Your task to perform on an android device: Open Google Chrome Image 0: 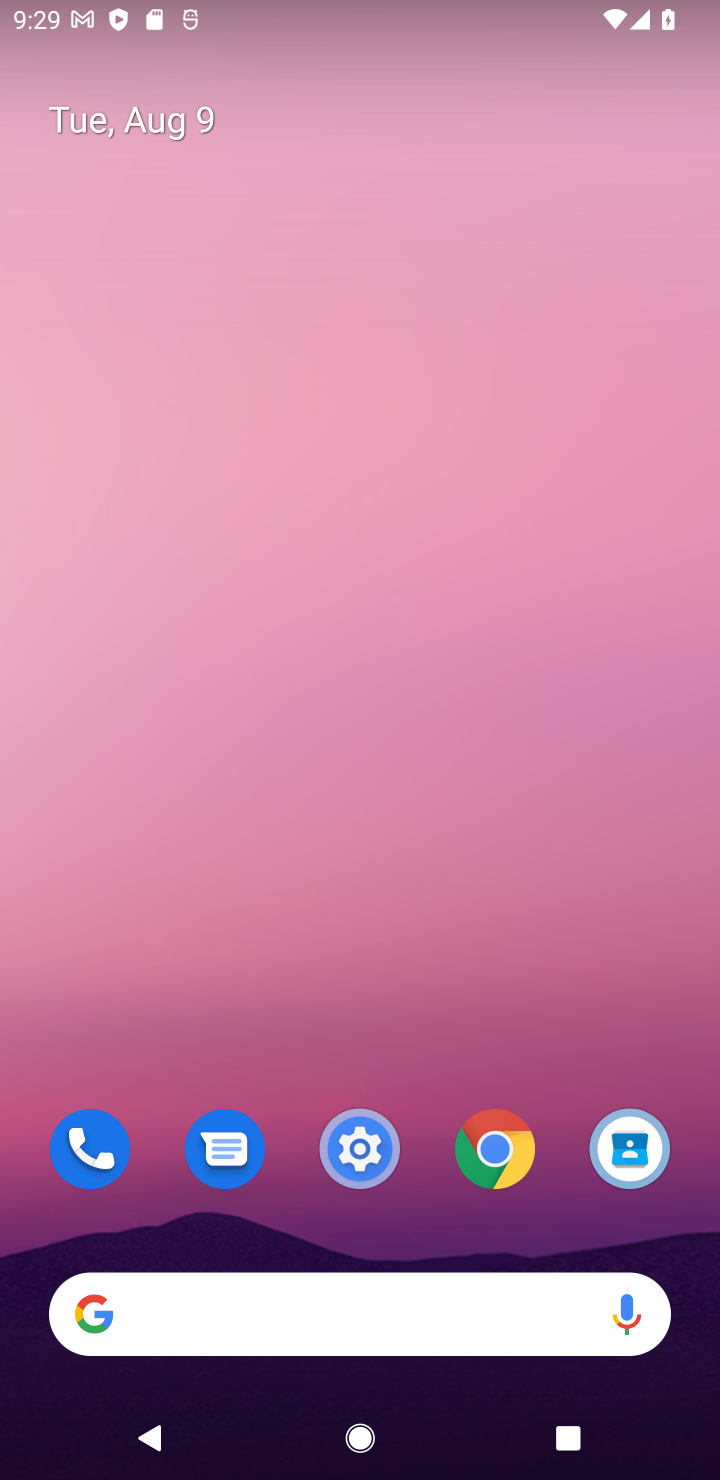
Step 0: click (516, 1152)
Your task to perform on an android device: Open Google Chrome Image 1: 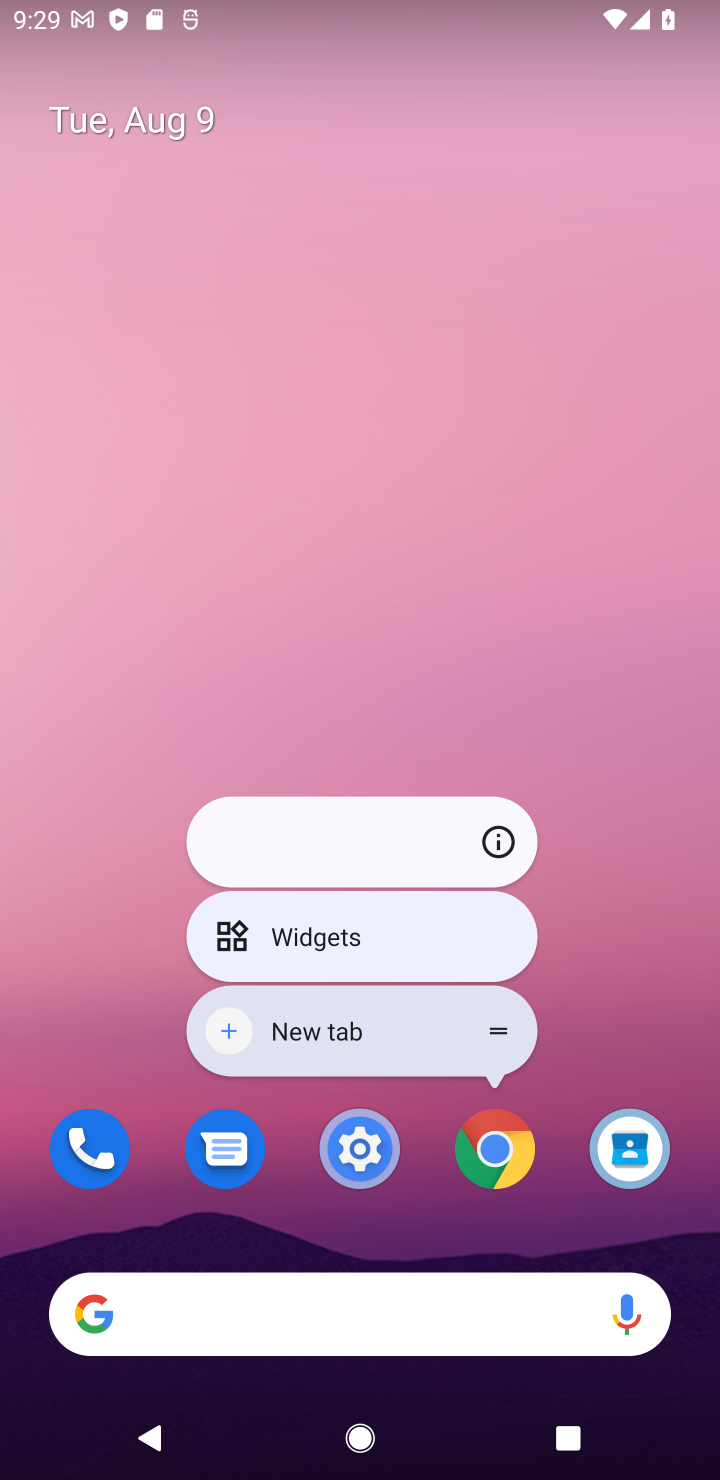
Step 1: click (491, 1139)
Your task to perform on an android device: Open Google Chrome Image 2: 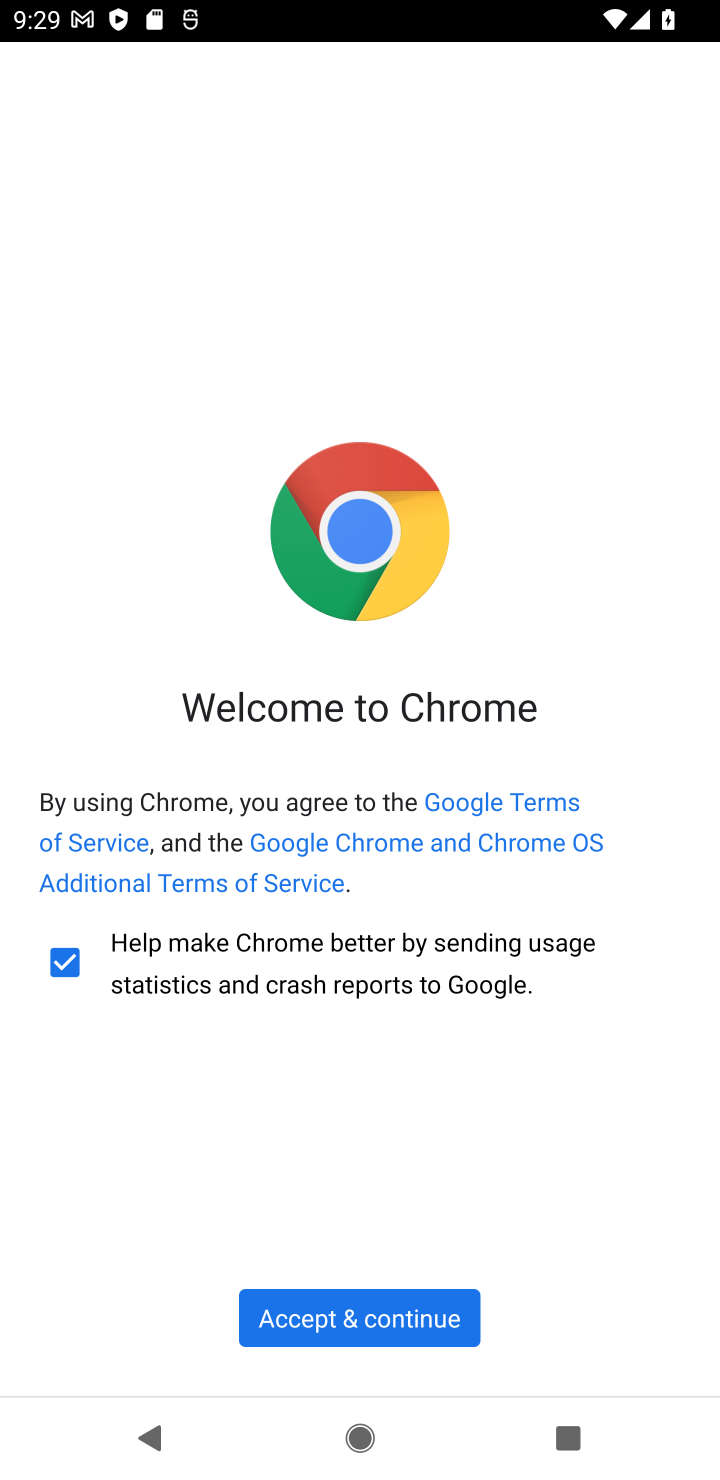
Step 2: click (431, 1301)
Your task to perform on an android device: Open Google Chrome Image 3: 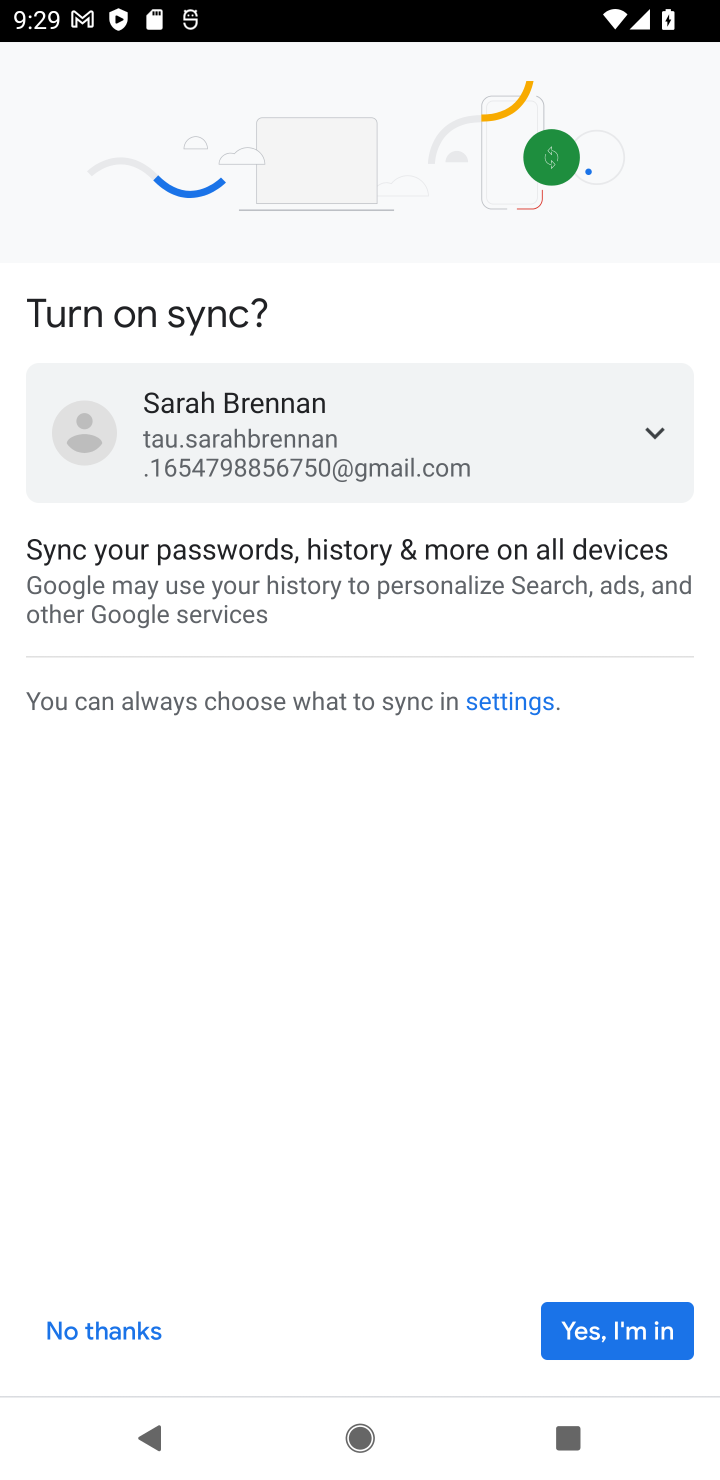
Step 3: click (596, 1312)
Your task to perform on an android device: Open Google Chrome Image 4: 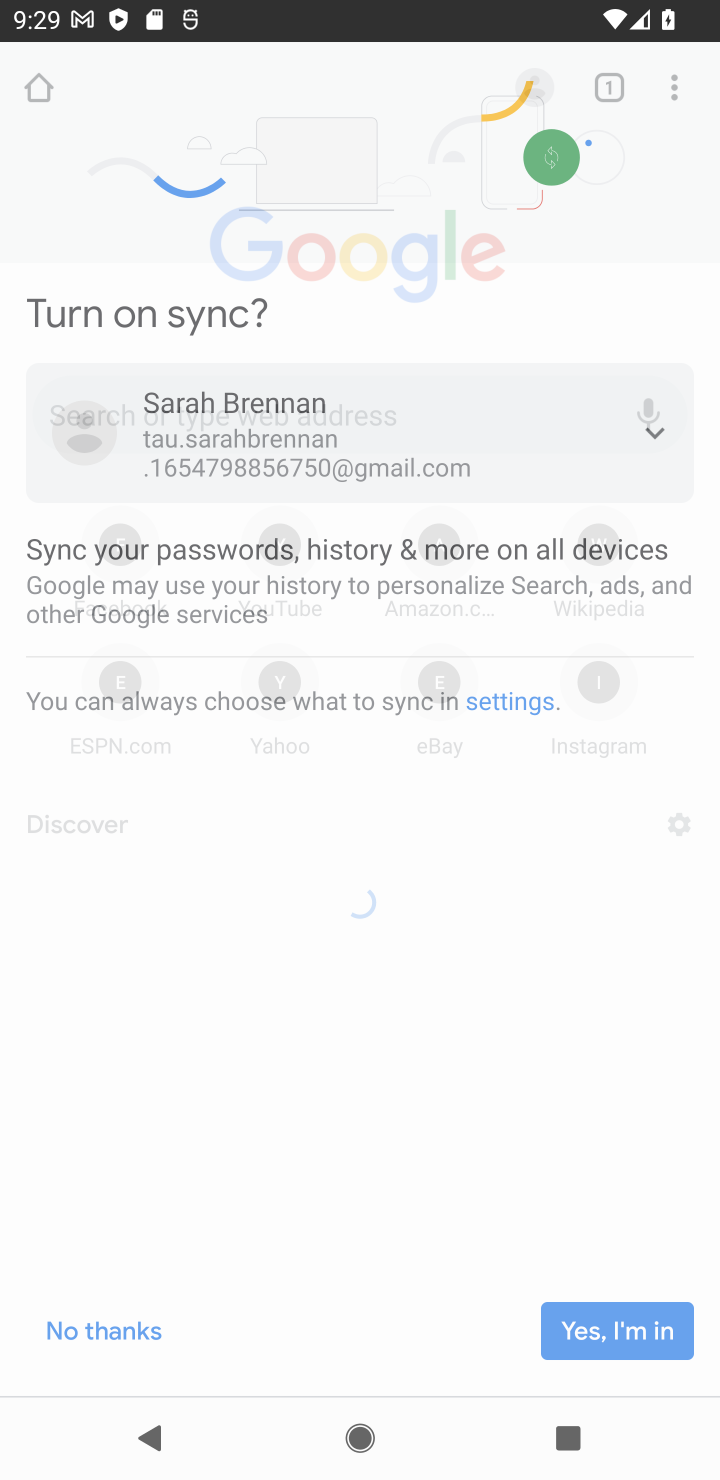
Step 4: task complete